Your task to perform on an android device: Go to Yahoo.com Image 0: 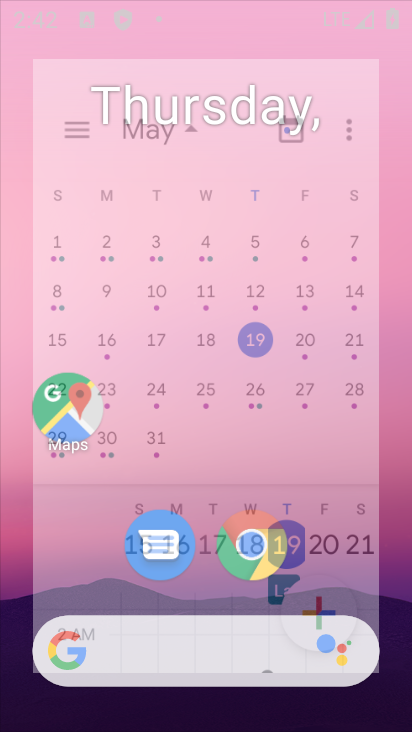
Step 0: drag from (251, 630) to (323, 130)
Your task to perform on an android device: Go to Yahoo.com Image 1: 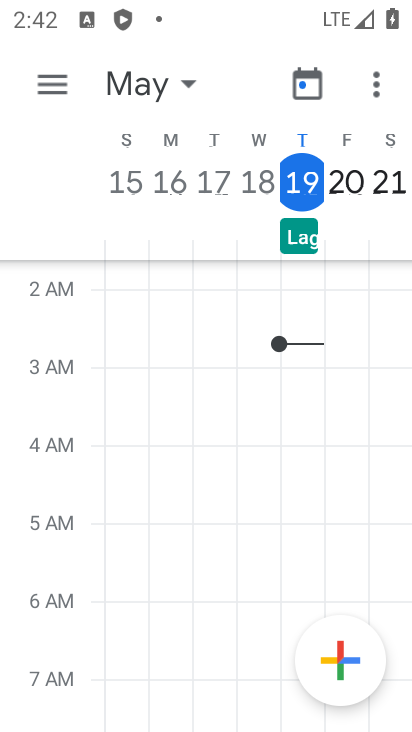
Step 1: press home button
Your task to perform on an android device: Go to Yahoo.com Image 2: 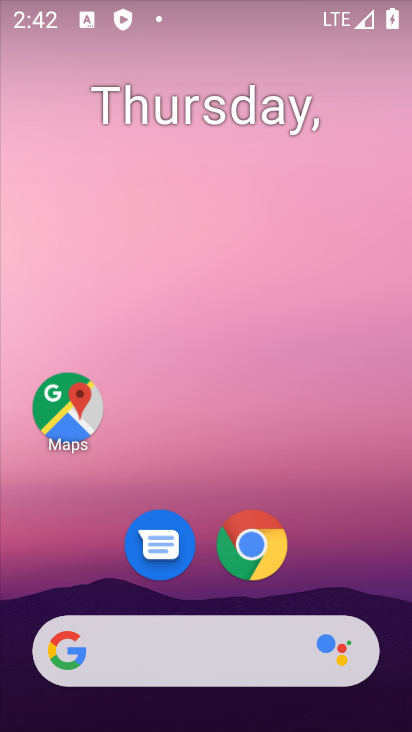
Step 2: drag from (220, 496) to (170, 22)
Your task to perform on an android device: Go to Yahoo.com Image 3: 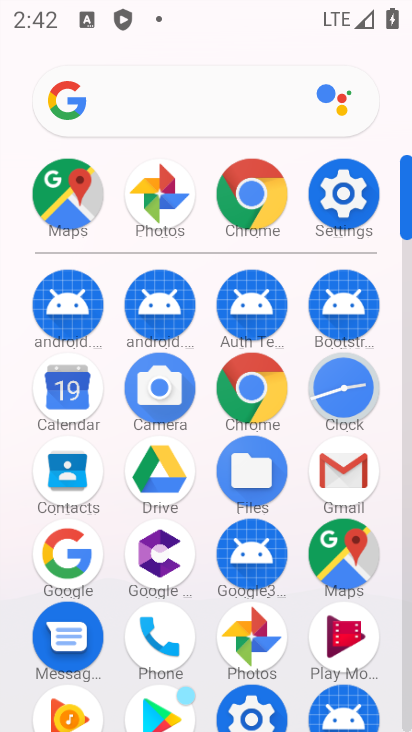
Step 3: click (251, 393)
Your task to perform on an android device: Go to Yahoo.com Image 4: 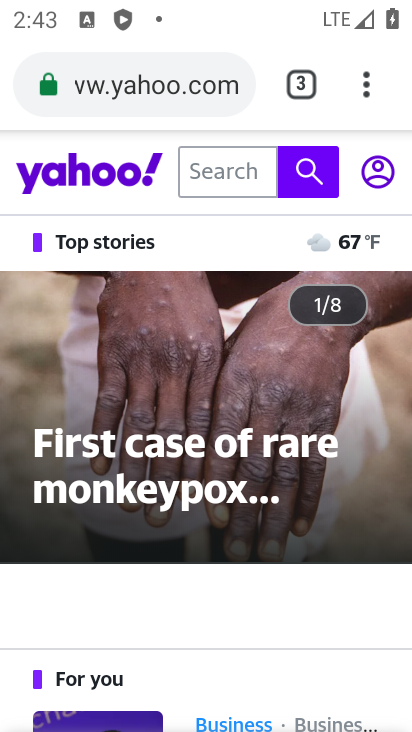
Step 4: task complete